Your task to perform on an android device: Open the calendar app, open the side menu, and click the "Day" option Image 0: 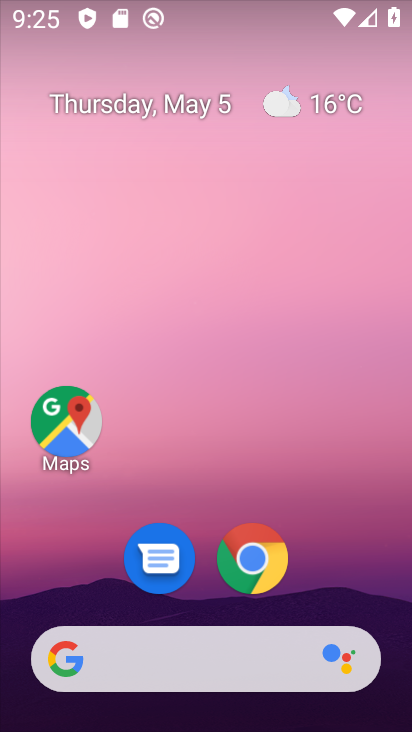
Step 0: click (273, 281)
Your task to perform on an android device: Open the calendar app, open the side menu, and click the "Day" option Image 1: 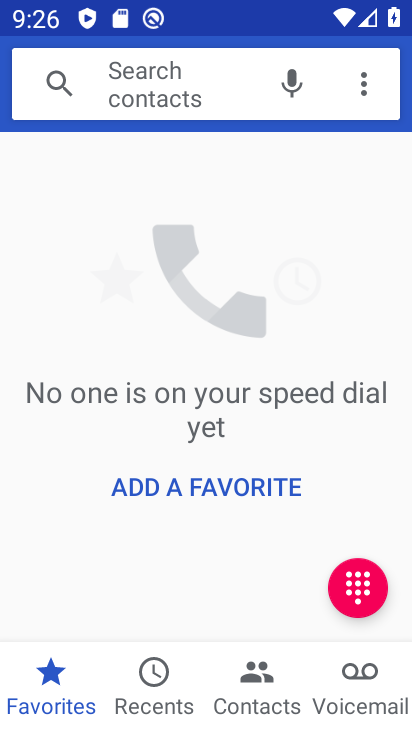
Step 1: press home button
Your task to perform on an android device: Open the calendar app, open the side menu, and click the "Day" option Image 2: 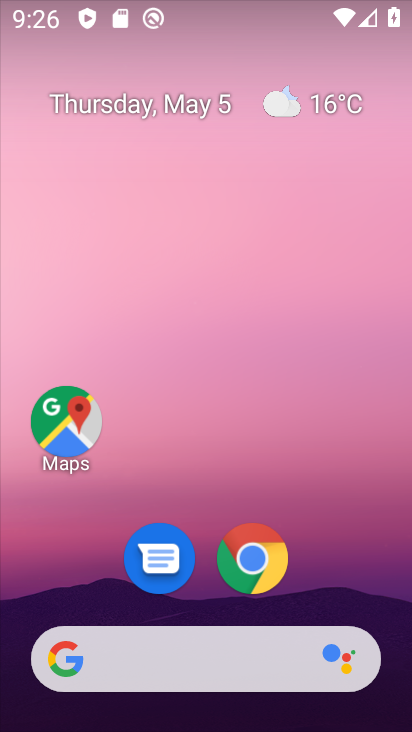
Step 2: drag from (350, 567) to (263, 119)
Your task to perform on an android device: Open the calendar app, open the side menu, and click the "Day" option Image 3: 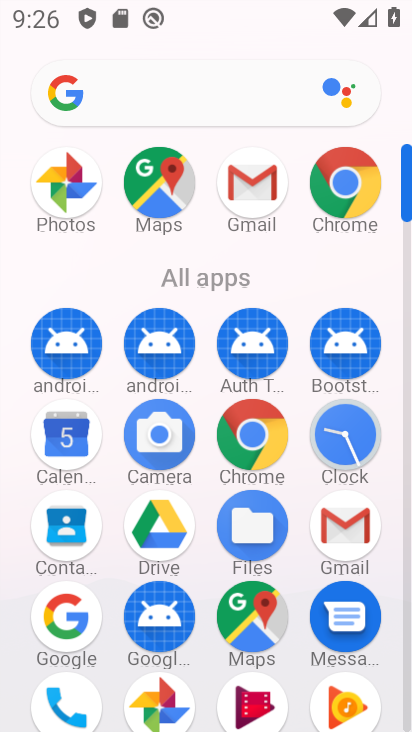
Step 3: click (68, 436)
Your task to perform on an android device: Open the calendar app, open the side menu, and click the "Day" option Image 4: 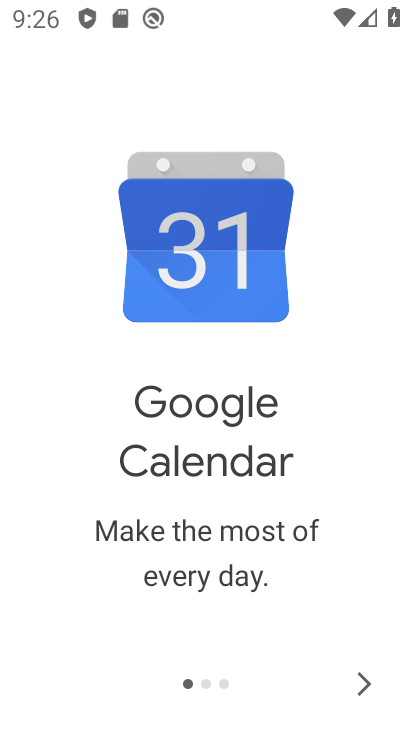
Step 4: click (366, 689)
Your task to perform on an android device: Open the calendar app, open the side menu, and click the "Day" option Image 5: 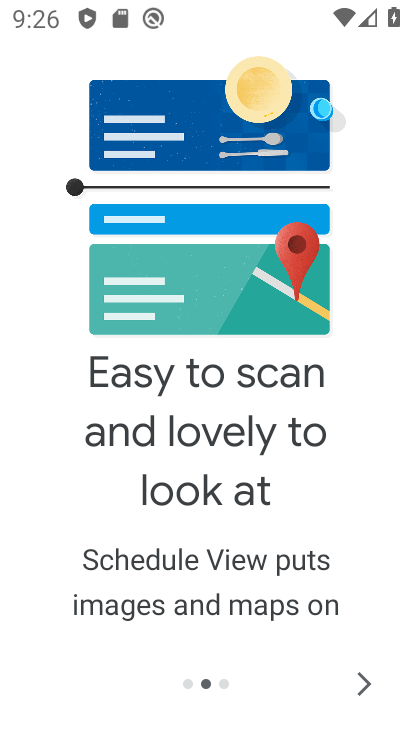
Step 5: click (365, 689)
Your task to perform on an android device: Open the calendar app, open the side menu, and click the "Day" option Image 6: 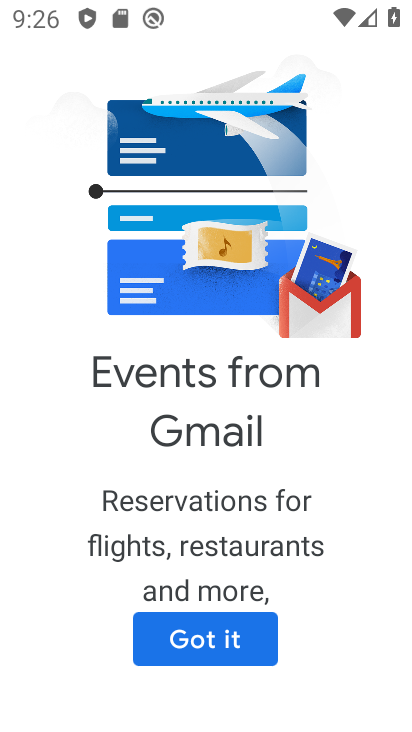
Step 6: click (218, 630)
Your task to perform on an android device: Open the calendar app, open the side menu, and click the "Day" option Image 7: 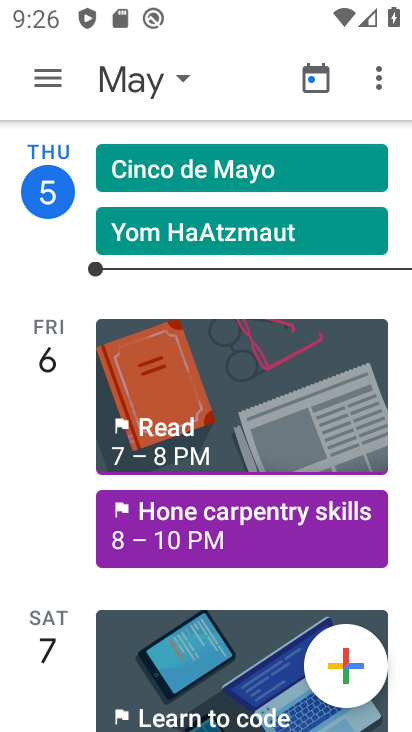
Step 7: click (68, 88)
Your task to perform on an android device: Open the calendar app, open the side menu, and click the "Day" option Image 8: 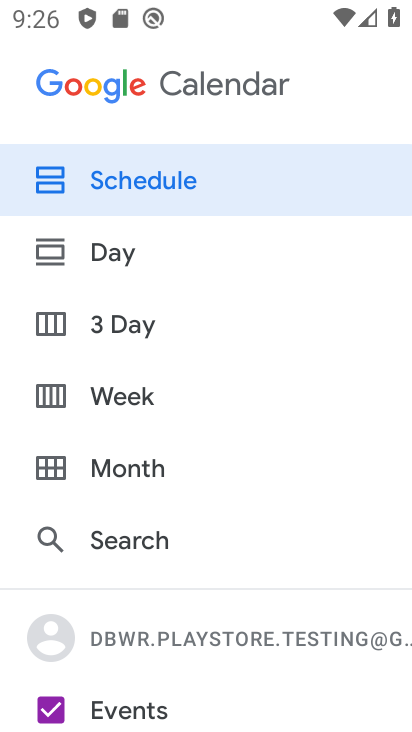
Step 8: click (131, 261)
Your task to perform on an android device: Open the calendar app, open the side menu, and click the "Day" option Image 9: 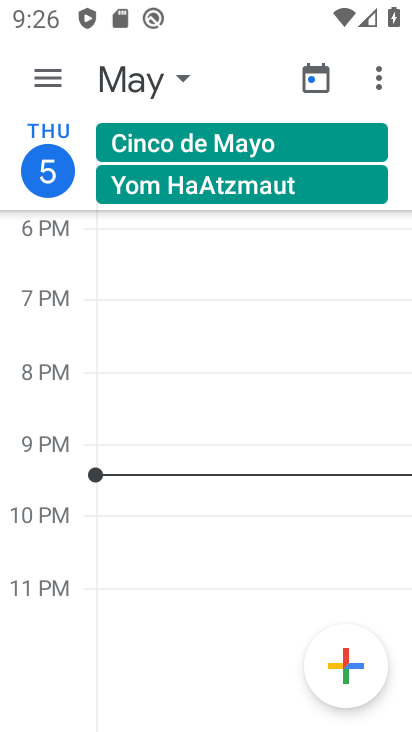
Step 9: task complete